Your task to perform on an android device: What's on my calendar tomorrow? Image 0: 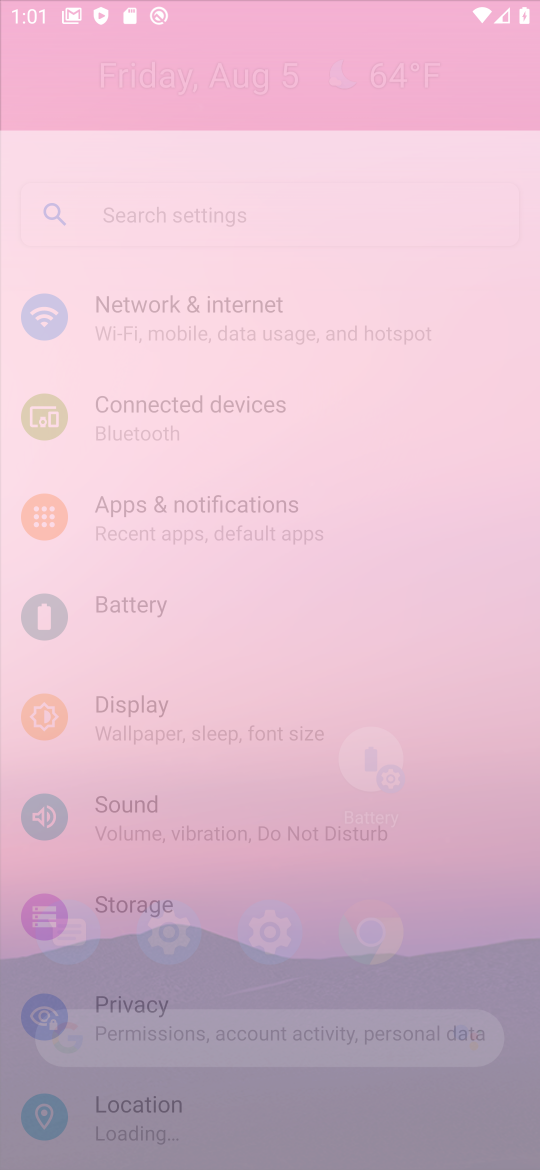
Step 0: press back button
Your task to perform on an android device: What's on my calendar tomorrow? Image 1: 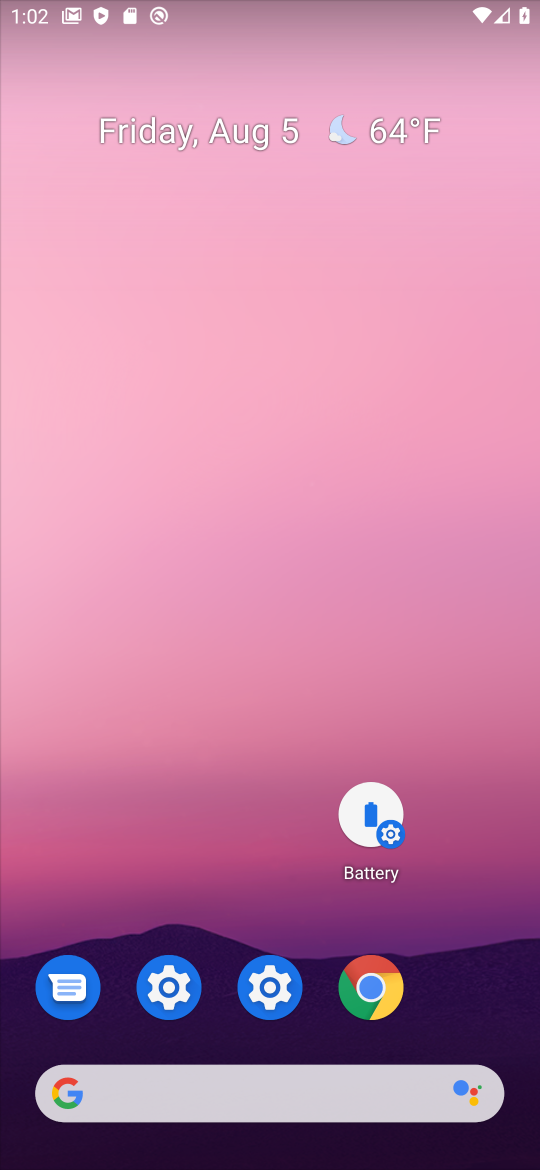
Step 1: press home button
Your task to perform on an android device: What's on my calendar tomorrow? Image 2: 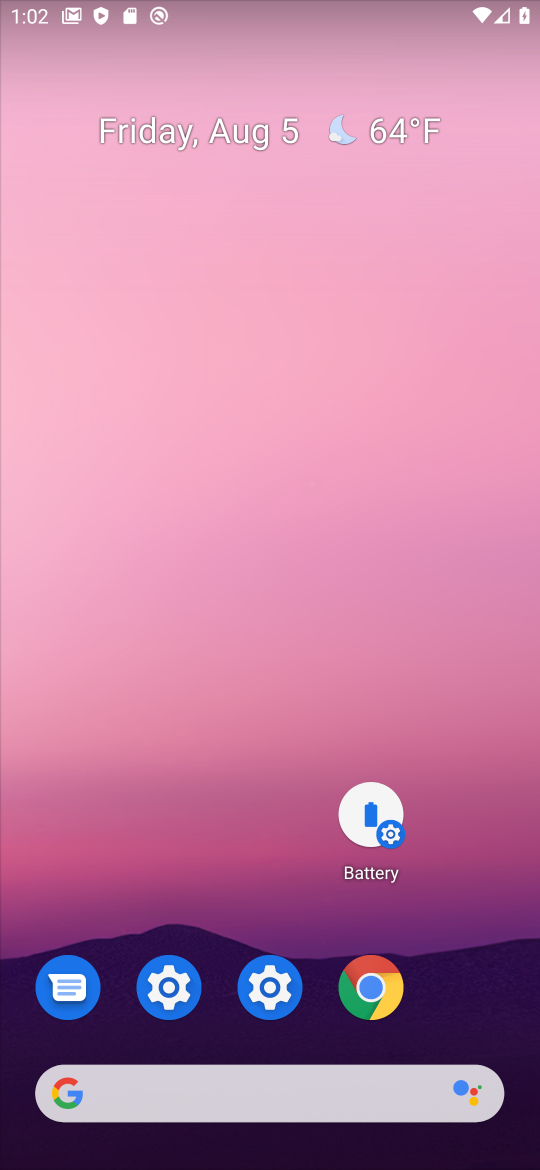
Step 2: drag from (280, 470) to (248, 278)
Your task to perform on an android device: What's on my calendar tomorrow? Image 3: 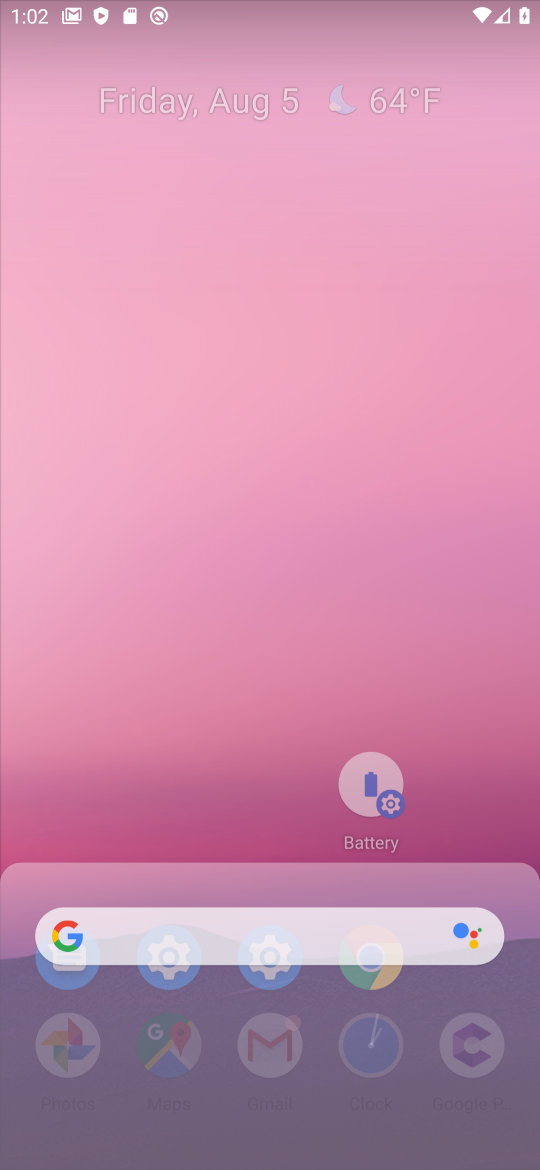
Step 3: click (315, 433)
Your task to perform on an android device: What's on my calendar tomorrow? Image 4: 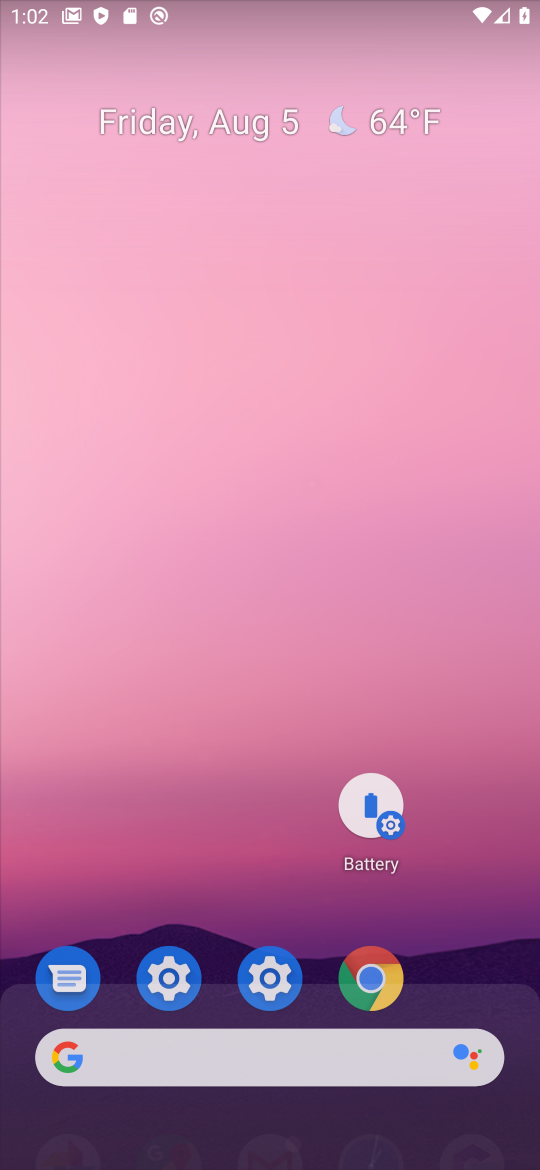
Step 4: drag from (295, 540) to (220, 283)
Your task to perform on an android device: What's on my calendar tomorrow? Image 5: 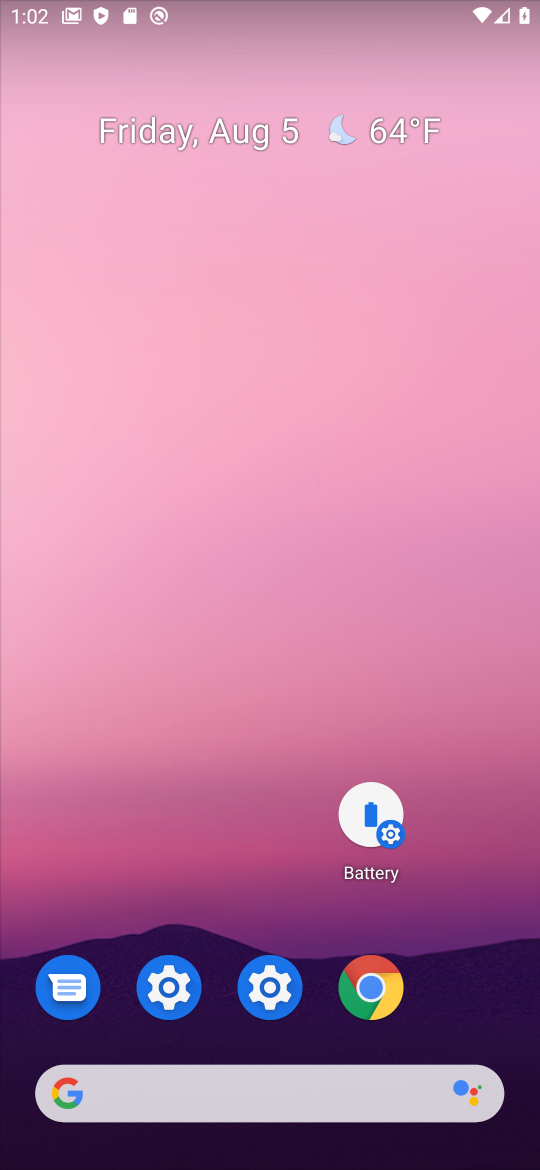
Step 5: click (194, 256)
Your task to perform on an android device: What's on my calendar tomorrow? Image 6: 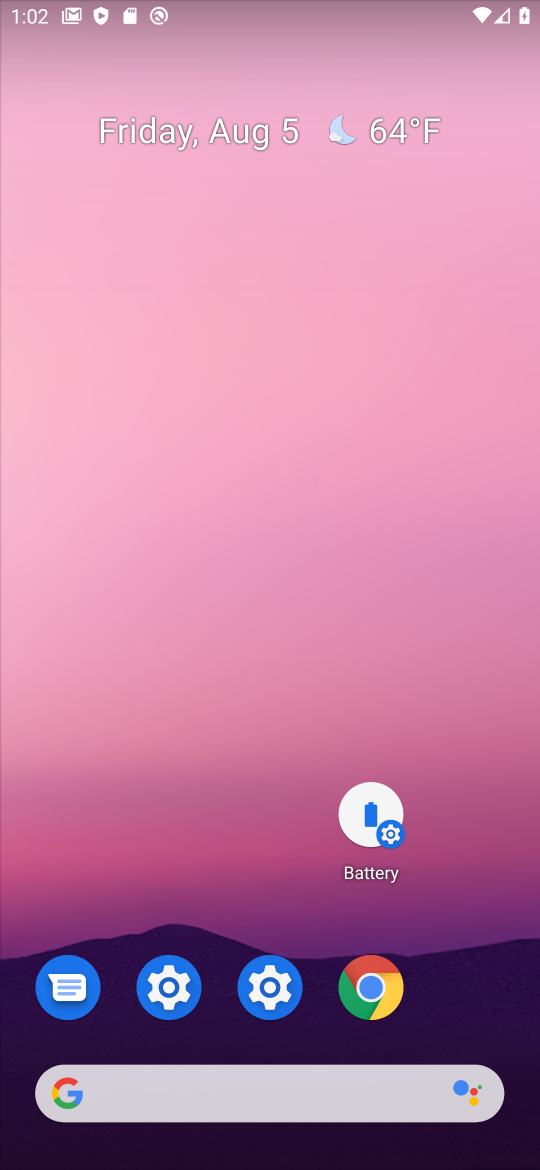
Step 6: drag from (256, 748) to (368, 106)
Your task to perform on an android device: What's on my calendar tomorrow? Image 7: 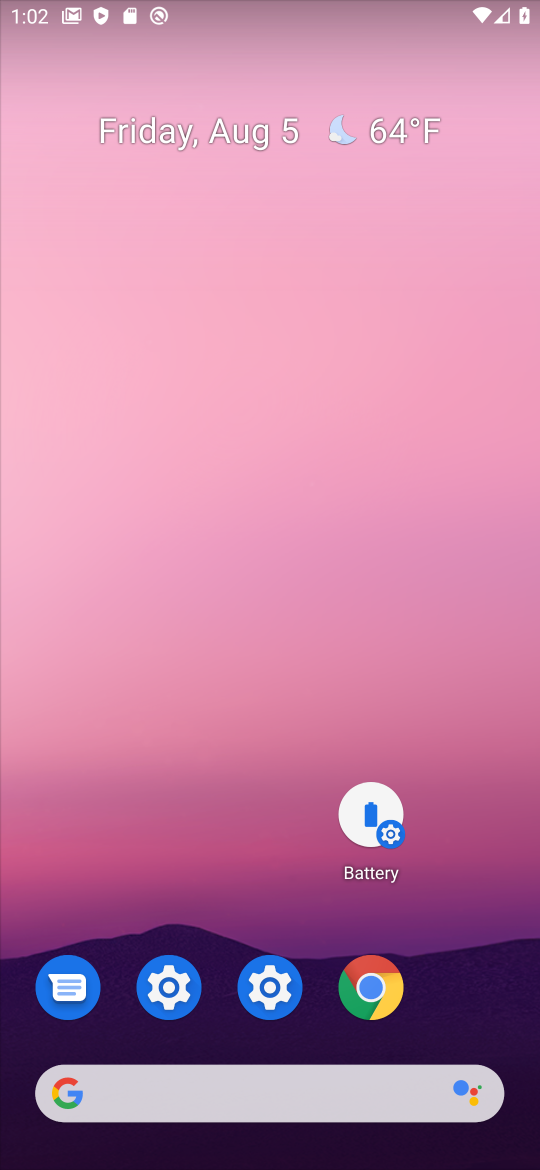
Step 7: drag from (367, 480) to (360, 176)
Your task to perform on an android device: What's on my calendar tomorrow? Image 8: 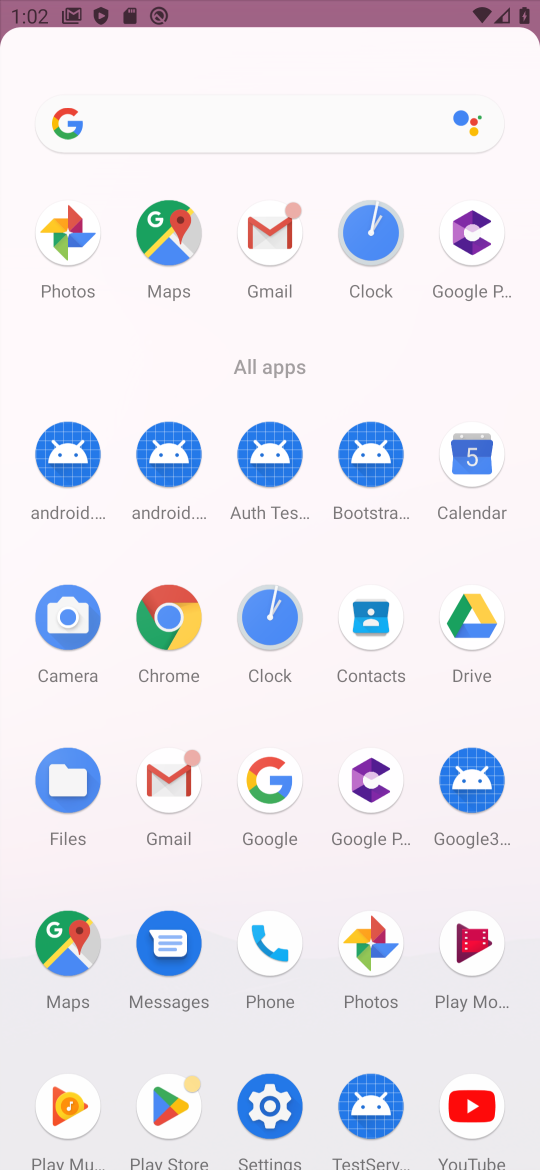
Step 8: click (236, 198)
Your task to perform on an android device: What's on my calendar tomorrow? Image 9: 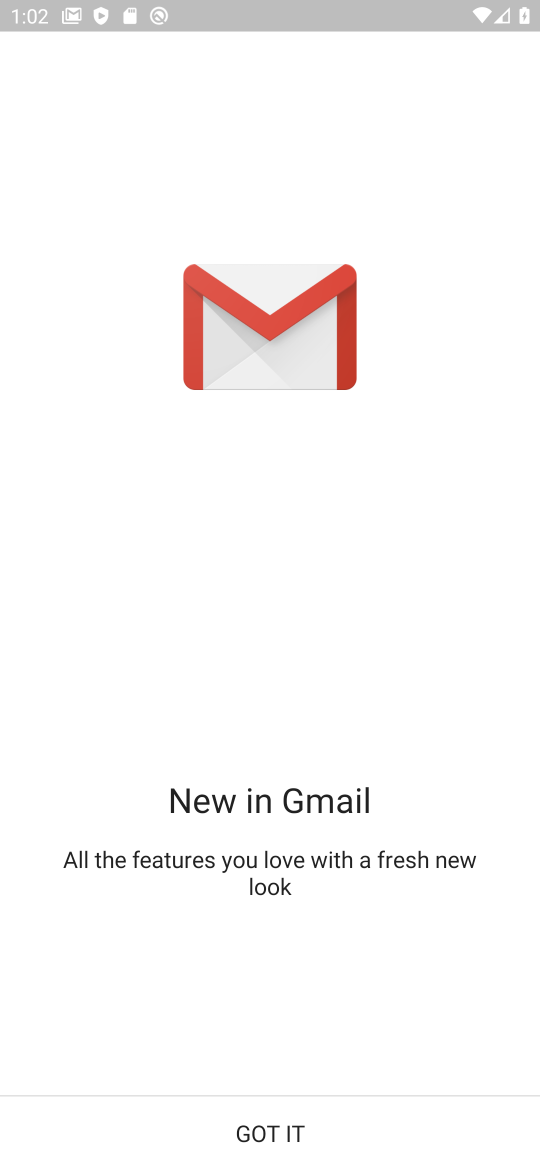
Step 9: press back button
Your task to perform on an android device: What's on my calendar tomorrow? Image 10: 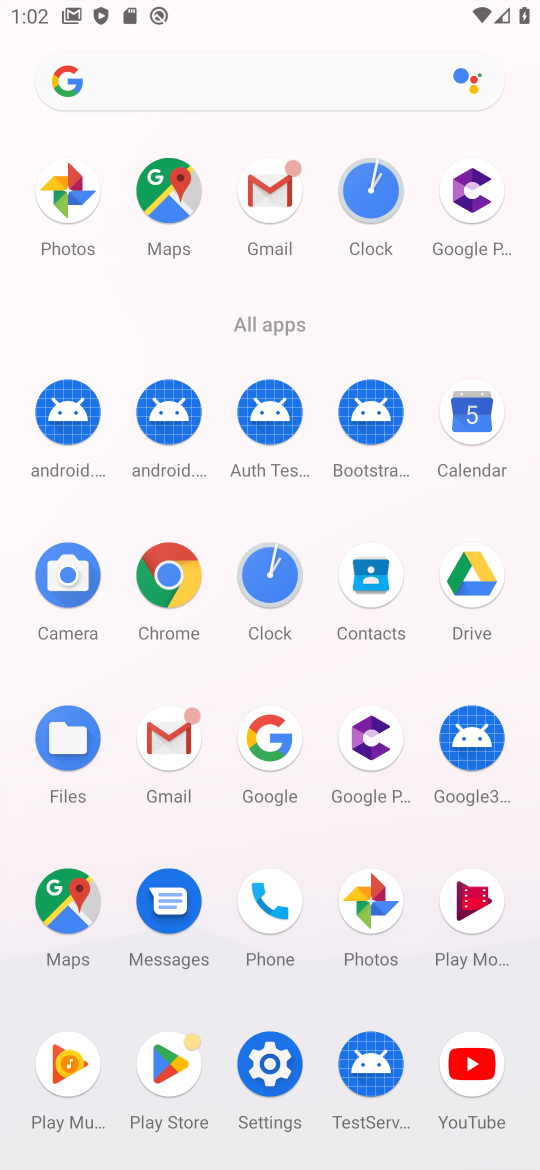
Step 10: click (480, 409)
Your task to perform on an android device: What's on my calendar tomorrow? Image 11: 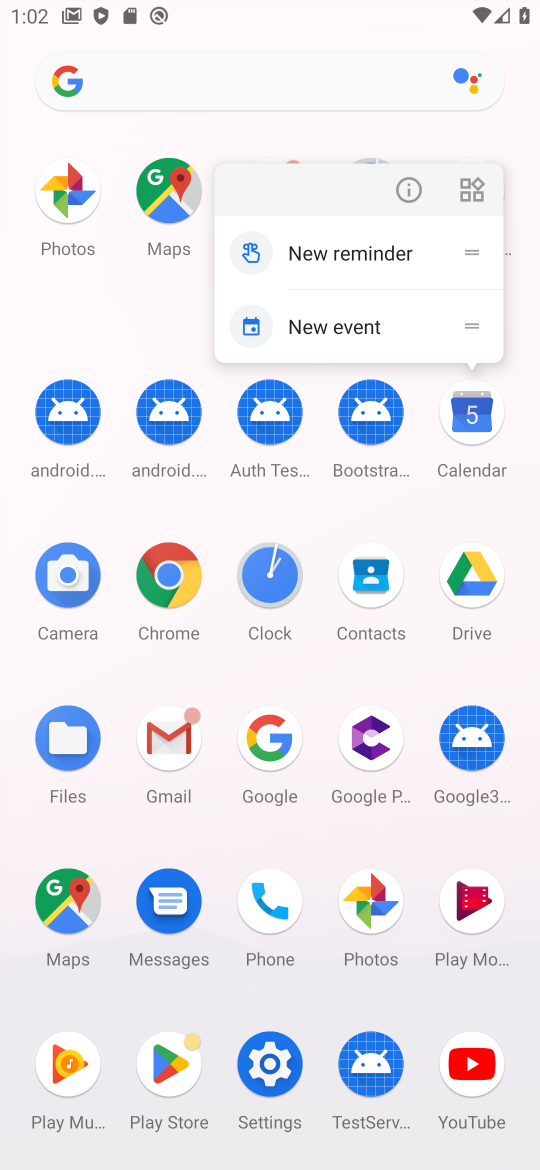
Step 11: click (471, 429)
Your task to perform on an android device: What's on my calendar tomorrow? Image 12: 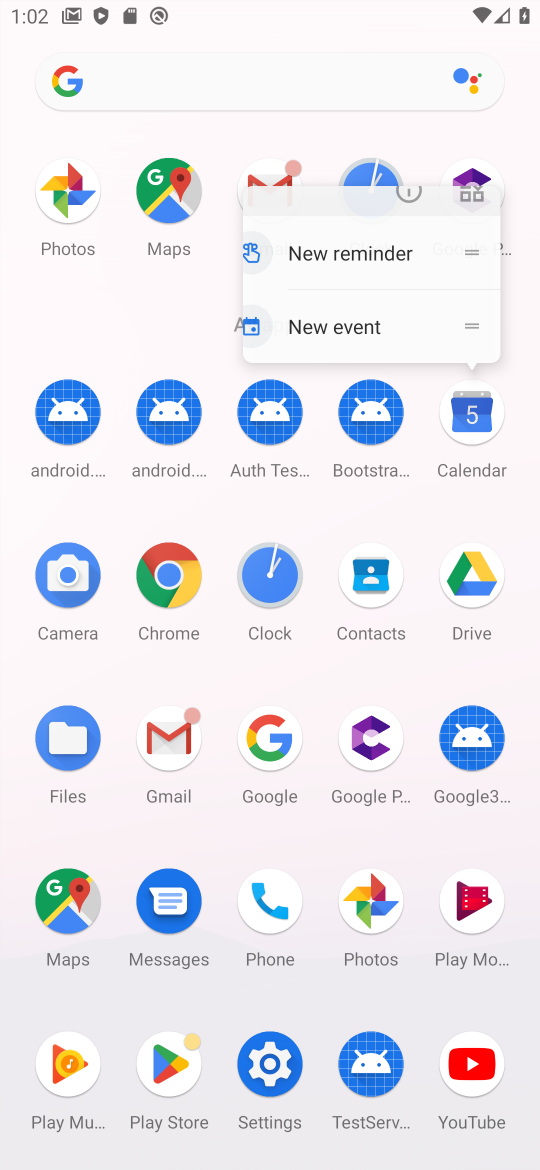
Step 12: click (474, 425)
Your task to perform on an android device: What's on my calendar tomorrow? Image 13: 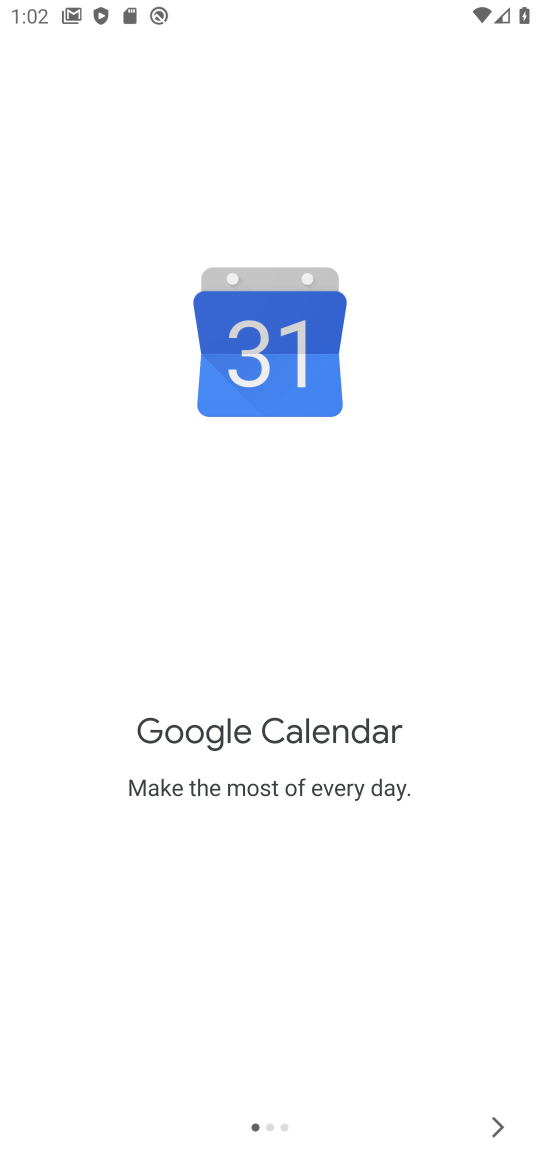
Step 13: click (474, 425)
Your task to perform on an android device: What's on my calendar tomorrow? Image 14: 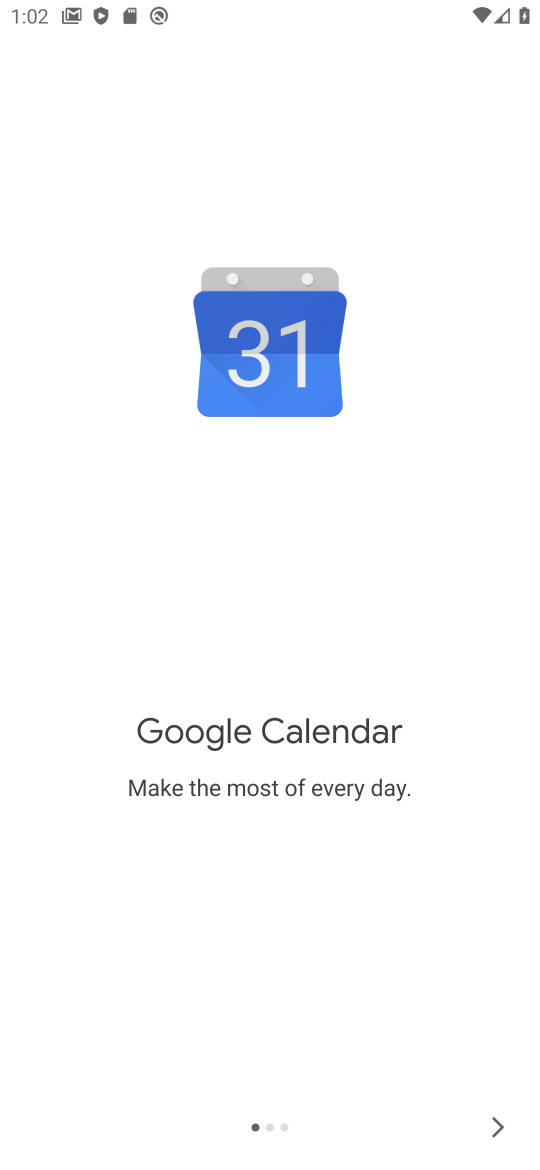
Step 14: click (498, 1126)
Your task to perform on an android device: What's on my calendar tomorrow? Image 15: 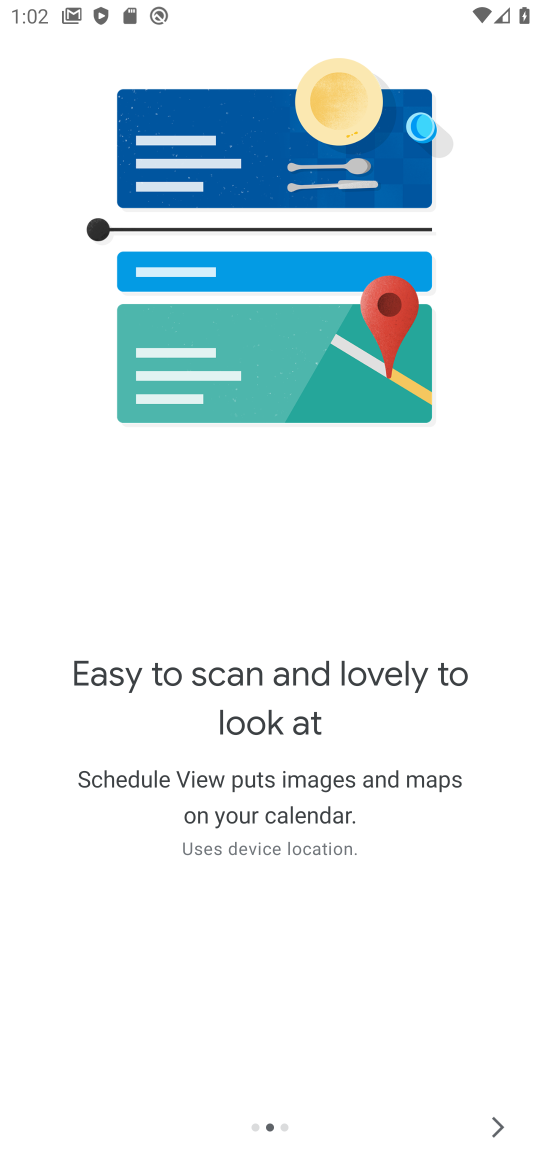
Step 15: click (490, 1126)
Your task to perform on an android device: What's on my calendar tomorrow? Image 16: 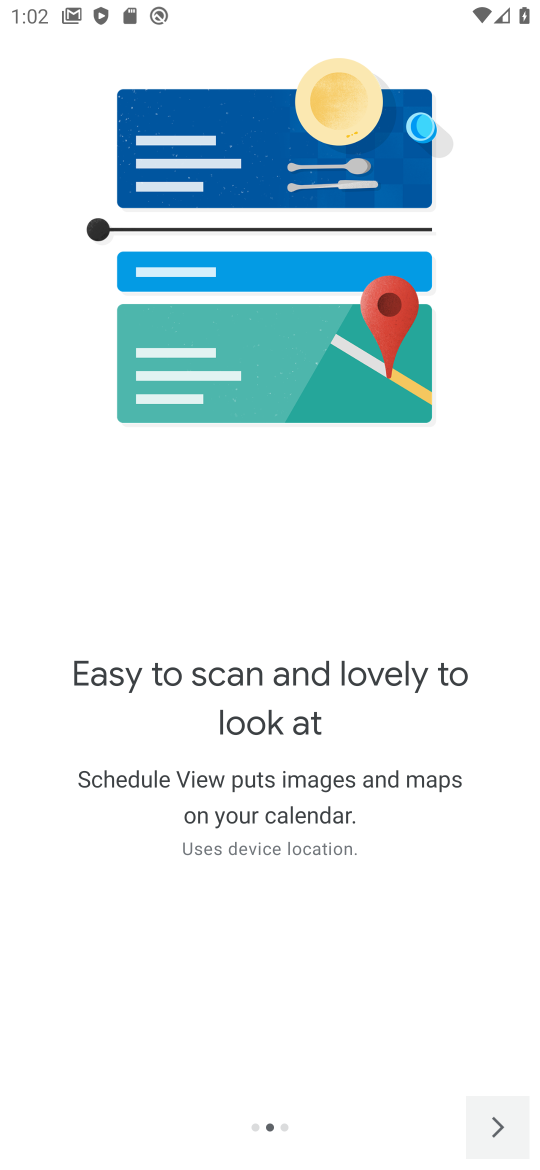
Step 16: click (490, 1126)
Your task to perform on an android device: What's on my calendar tomorrow? Image 17: 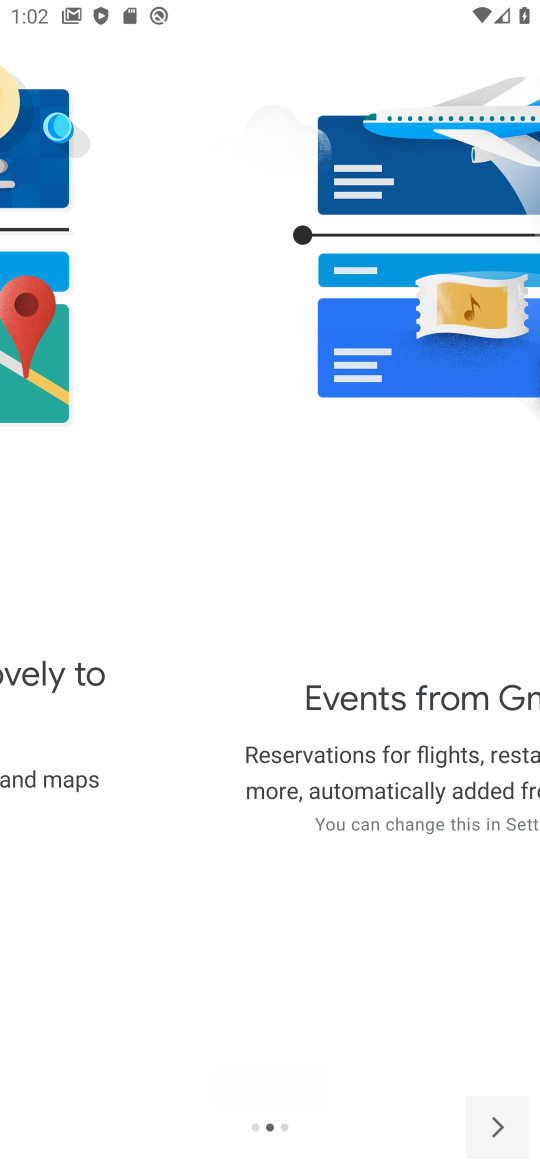
Step 17: click (490, 1126)
Your task to perform on an android device: What's on my calendar tomorrow? Image 18: 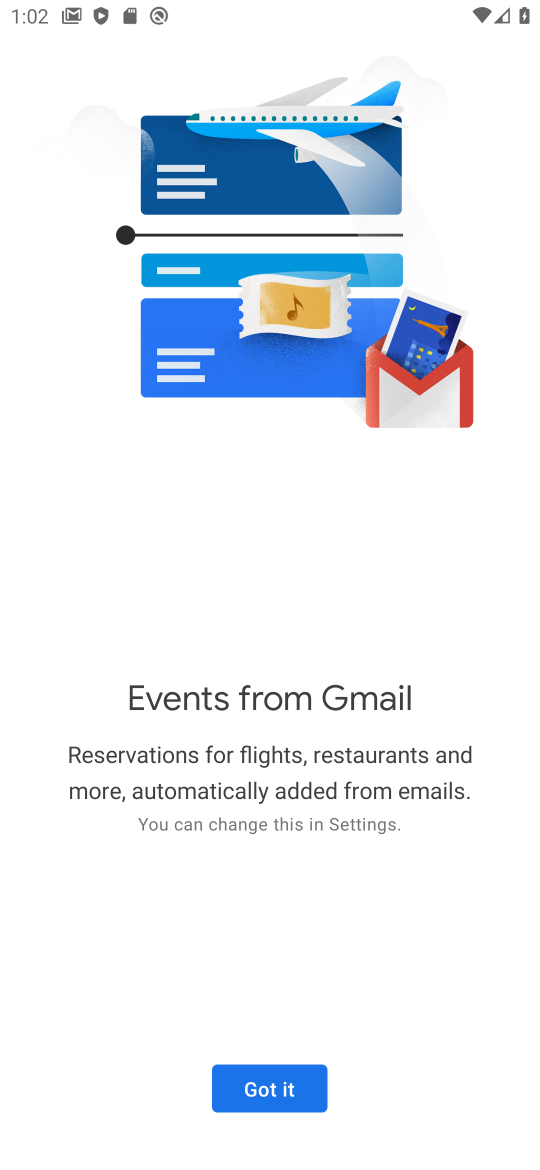
Step 18: click (490, 1126)
Your task to perform on an android device: What's on my calendar tomorrow? Image 19: 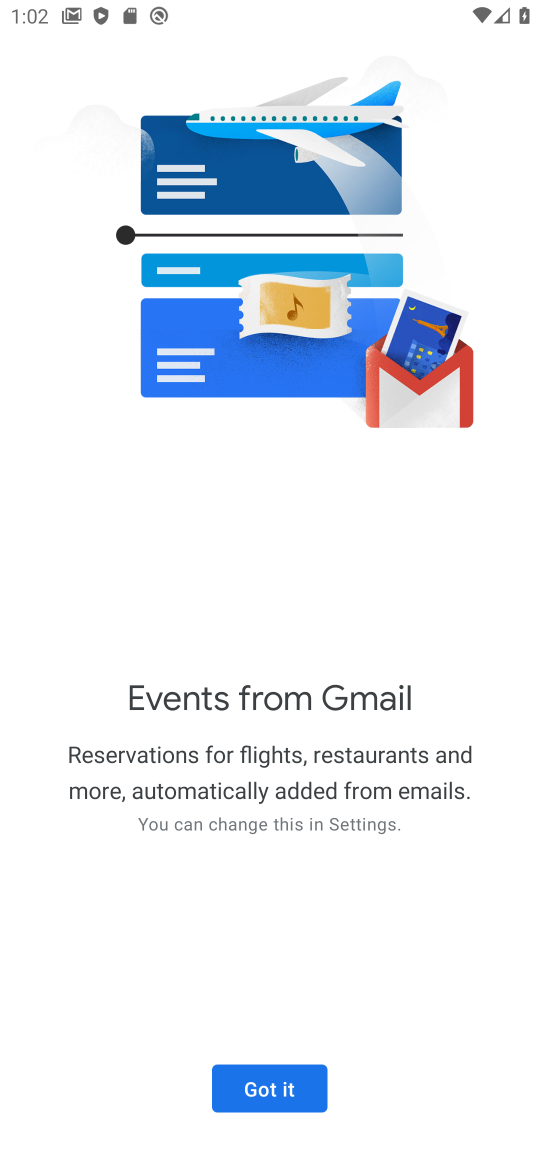
Step 19: click (267, 1096)
Your task to perform on an android device: What's on my calendar tomorrow? Image 20: 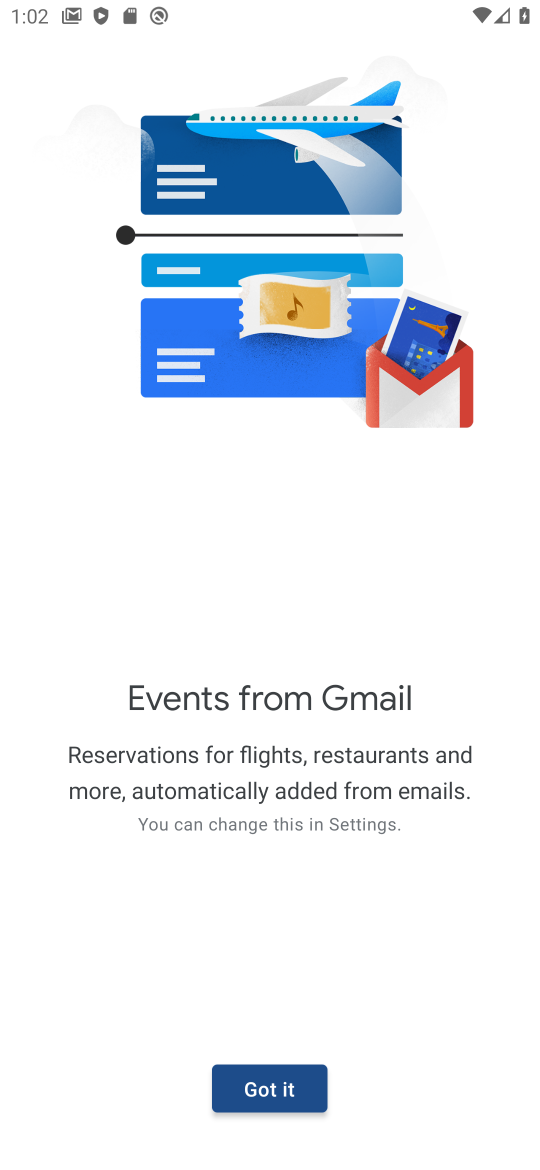
Step 20: click (267, 1097)
Your task to perform on an android device: What's on my calendar tomorrow? Image 21: 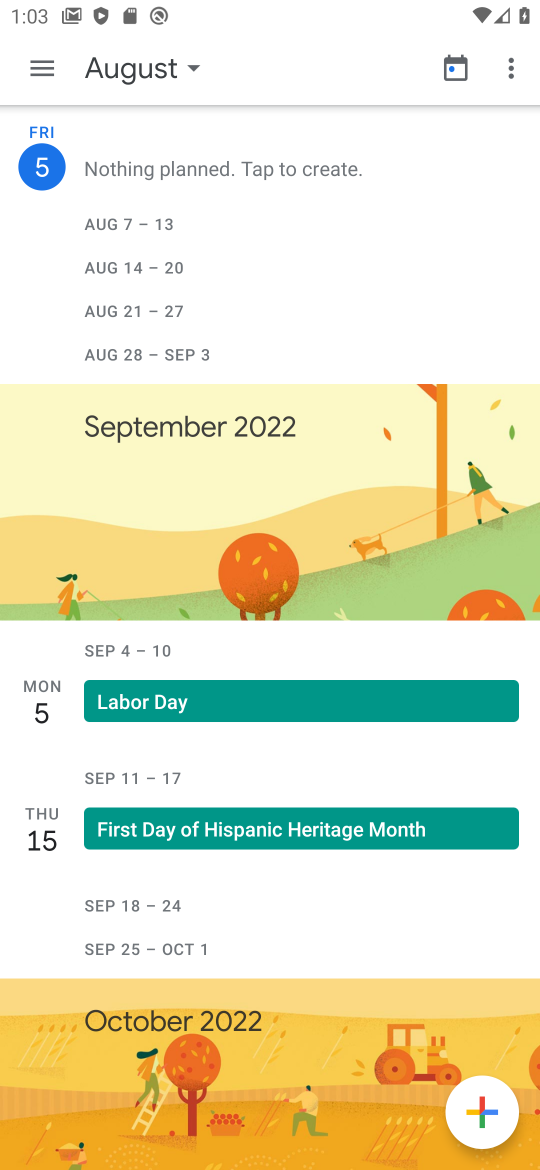
Step 21: click (193, 63)
Your task to perform on an android device: What's on my calendar tomorrow? Image 22: 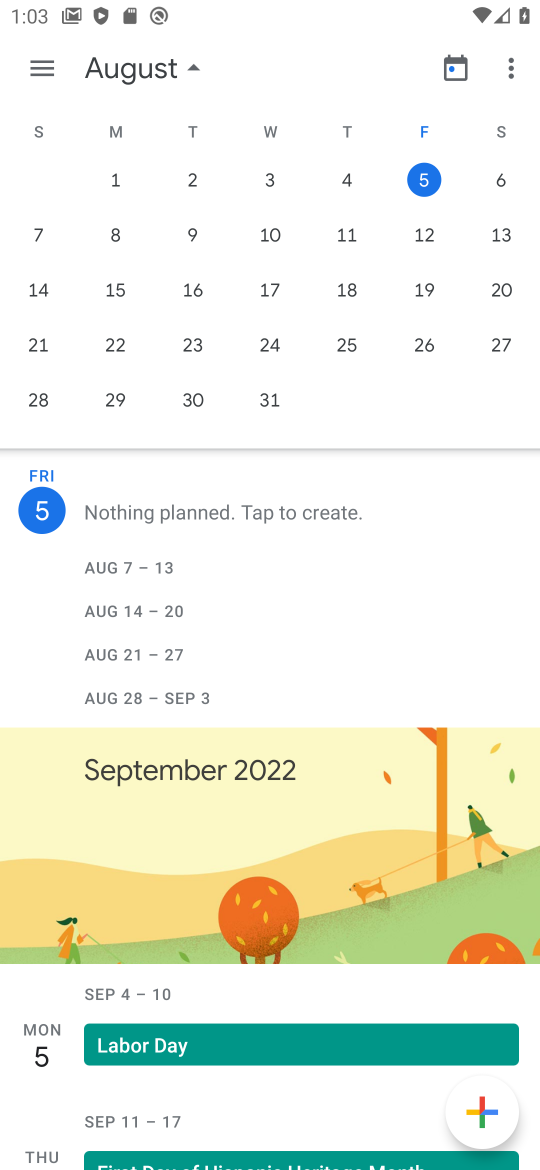
Step 22: click (497, 174)
Your task to perform on an android device: What's on my calendar tomorrow? Image 23: 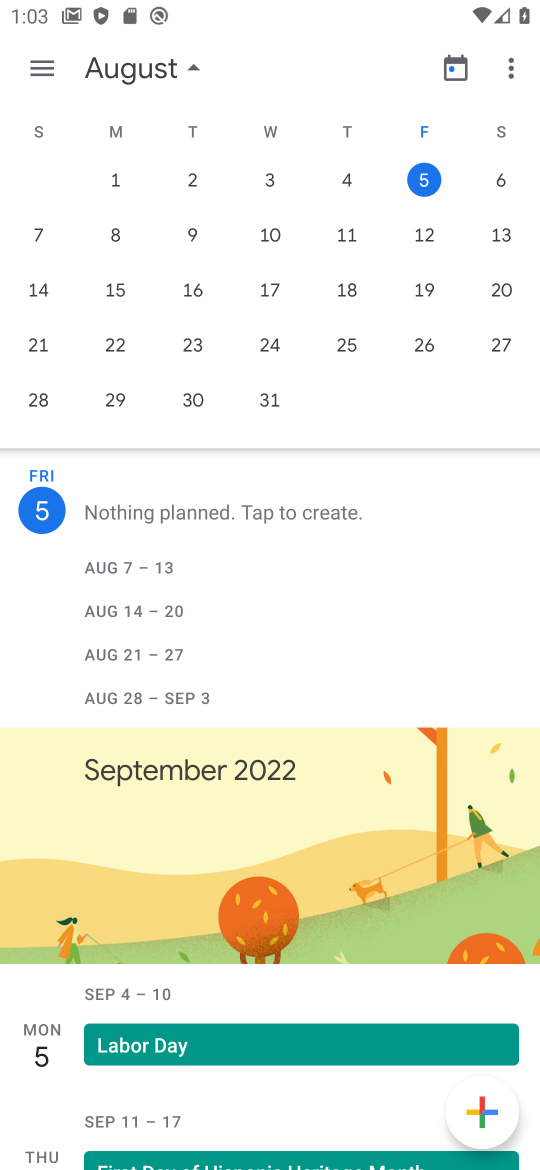
Step 23: click (499, 178)
Your task to perform on an android device: What's on my calendar tomorrow? Image 24: 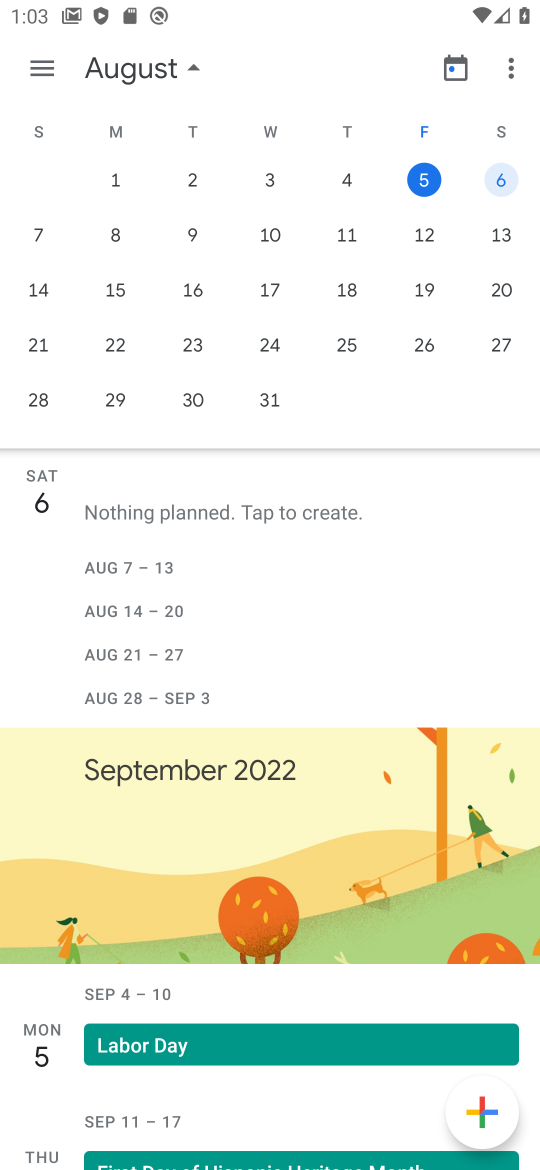
Step 24: click (528, 206)
Your task to perform on an android device: What's on my calendar tomorrow? Image 25: 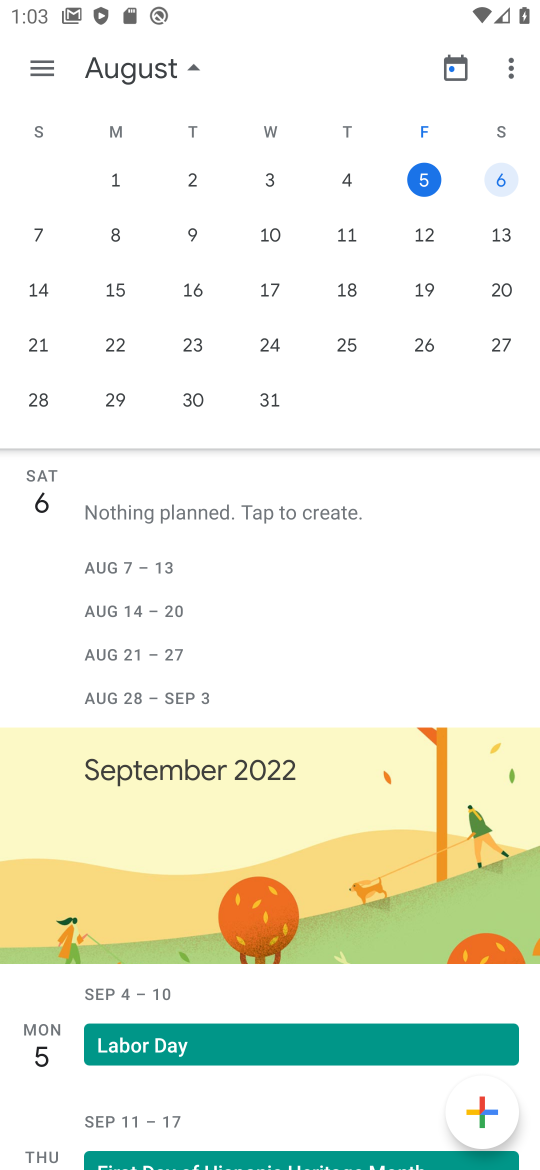
Step 25: task complete